Your task to perform on an android device: check data usage Image 0: 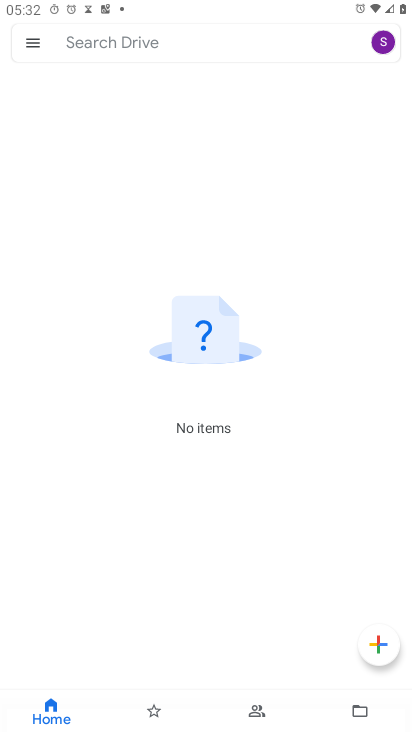
Step 0: press home button
Your task to perform on an android device: check data usage Image 1: 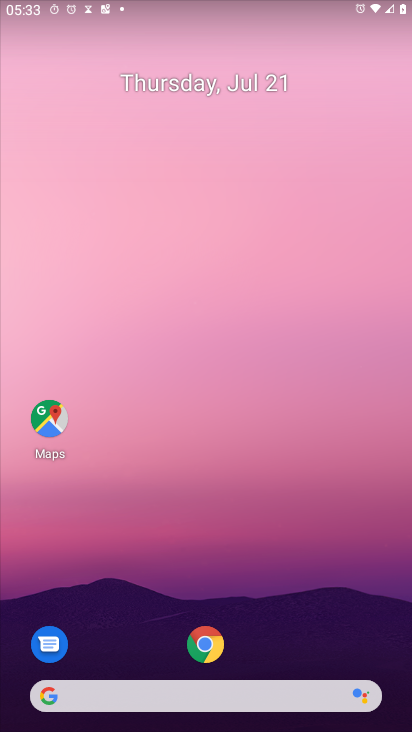
Step 1: drag from (296, 523) to (275, 81)
Your task to perform on an android device: check data usage Image 2: 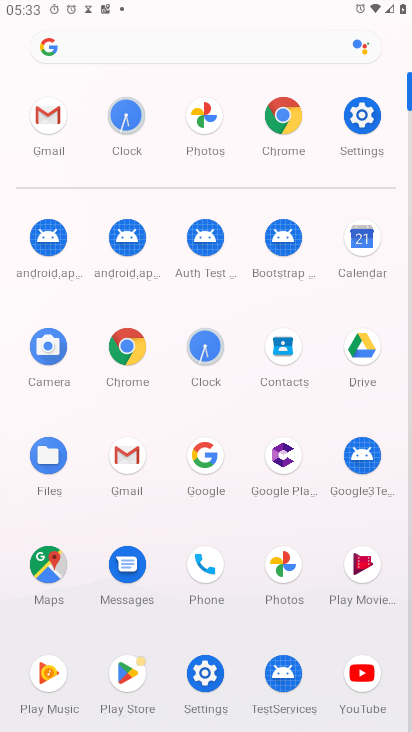
Step 2: click (362, 105)
Your task to perform on an android device: check data usage Image 3: 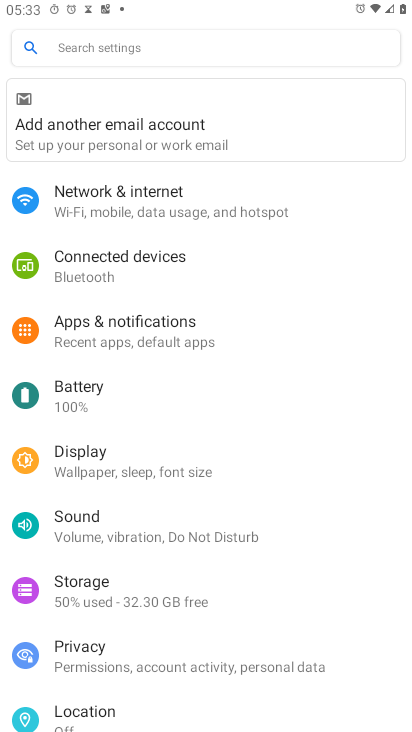
Step 3: click (153, 207)
Your task to perform on an android device: check data usage Image 4: 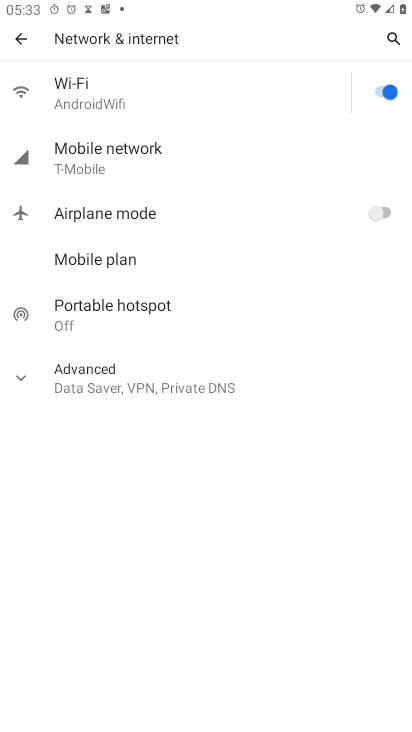
Step 4: click (122, 162)
Your task to perform on an android device: check data usage Image 5: 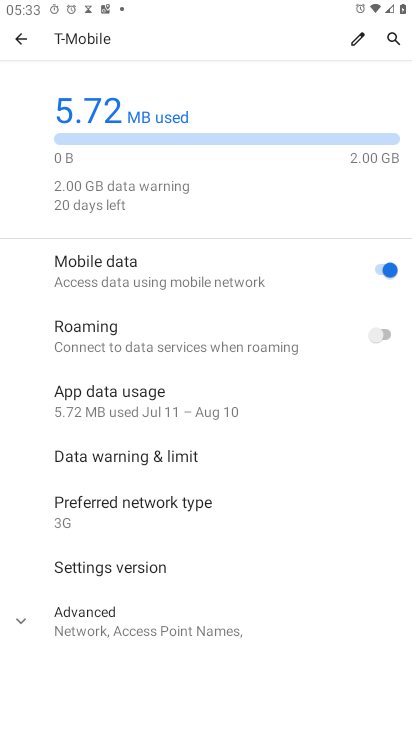
Step 5: task complete